Your task to perform on an android device: see creations saved in the google photos Image 0: 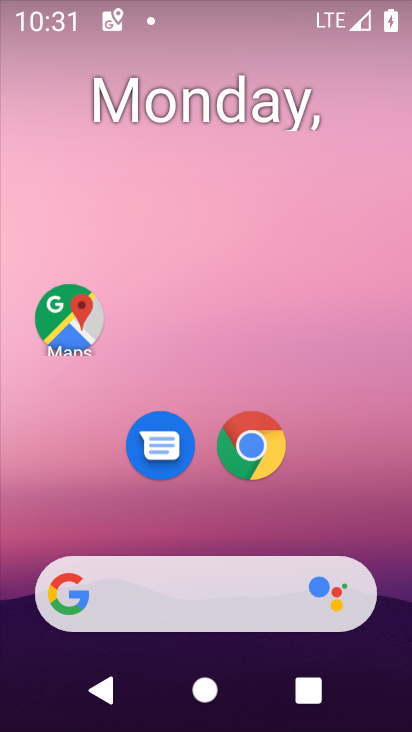
Step 0: drag from (246, 681) to (316, 11)
Your task to perform on an android device: see creations saved in the google photos Image 1: 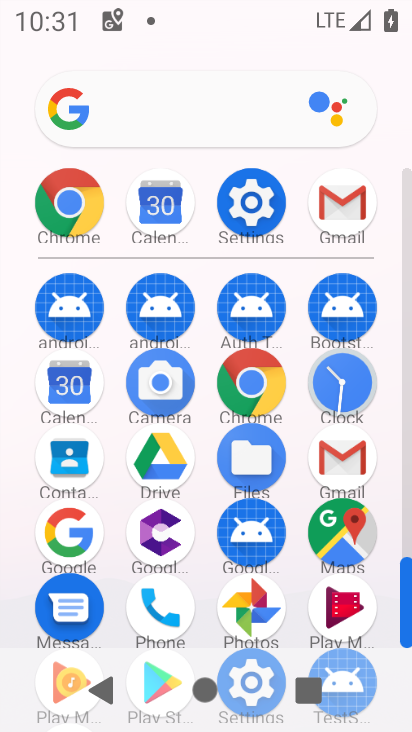
Step 1: click (252, 598)
Your task to perform on an android device: see creations saved in the google photos Image 2: 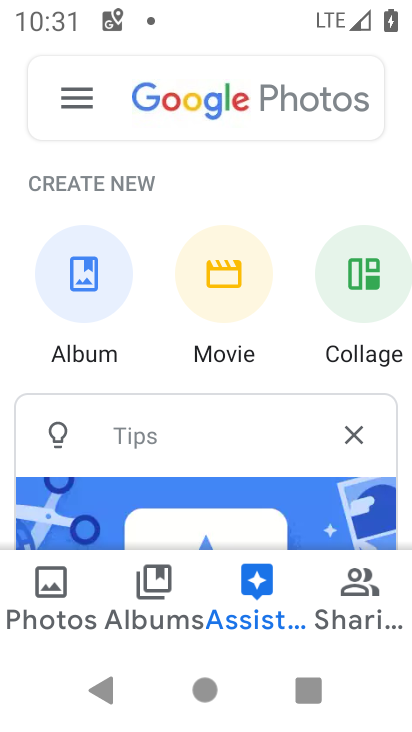
Step 2: click (156, 92)
Your task to perform on an android device: see creations saved in the google photos Image 3: 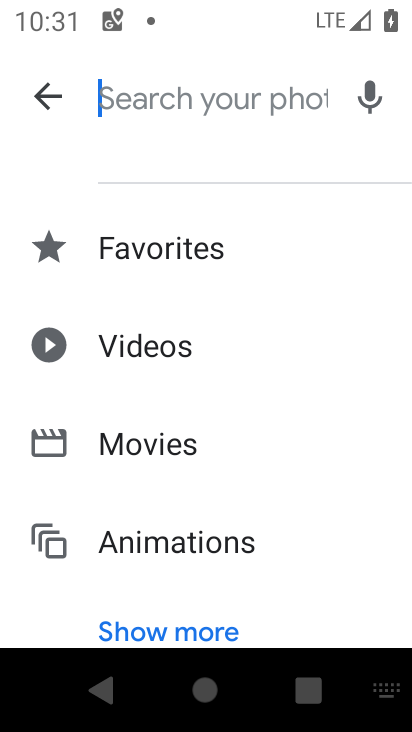
Step 3: drag from (226, 601) to (295, 29)
Your task to perform on an android device: see creations saved in the google photos Image 4: 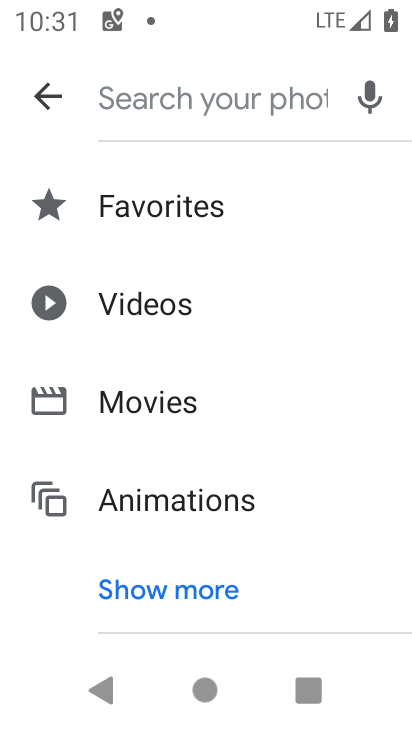
Step 4: click (167, 592)
Your task to perform on an android device: see creations saved in the google photos Image 5: 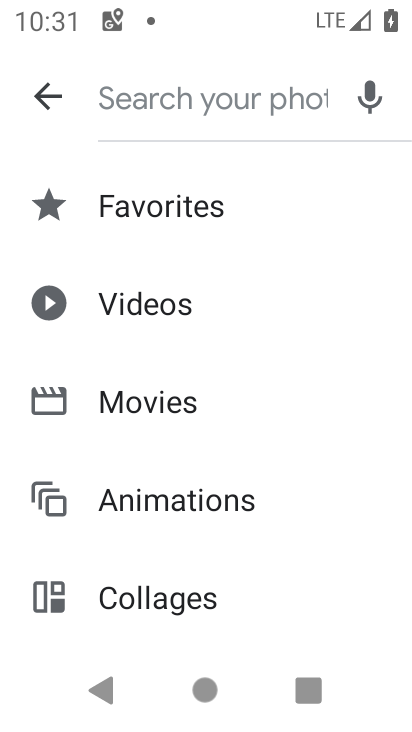
Step 5: drag from (250, 573) to (278, 56)
Your task to perform on an android device: see creations saved in the google photos Image 6: 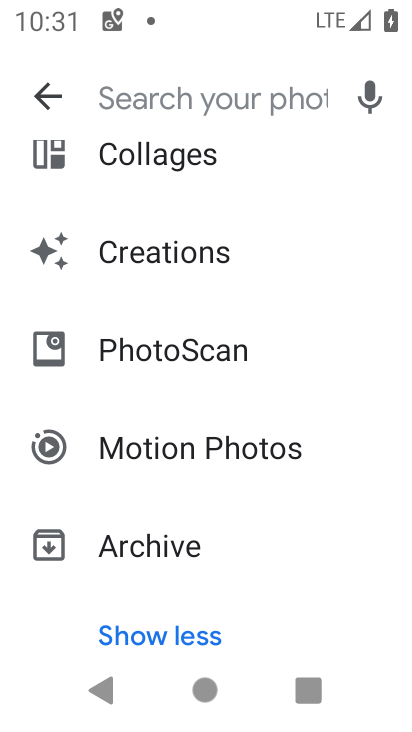
Step 6: click (162, 249)
Your task to perform on an android device: see creations saved in the google photos Image 7: 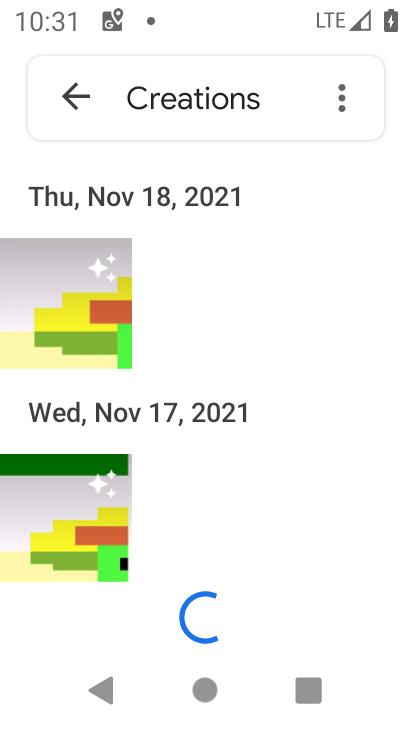
Step 7: task complete